Your task to perform on an android device: Open notification settings Image 0: 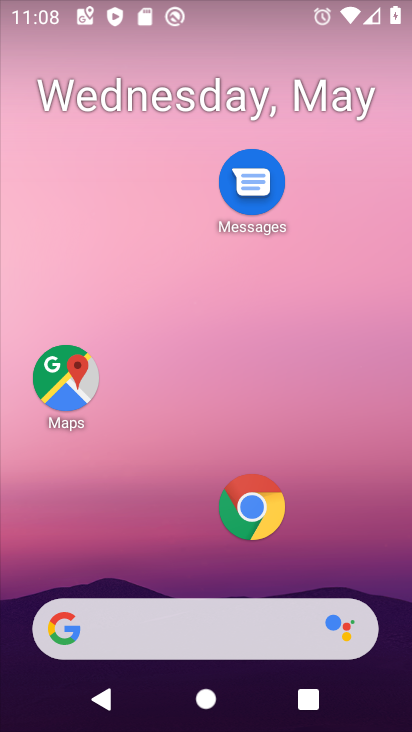
Step 0: press home button
Your task to perform on an android device: Open notification settings Image 1: 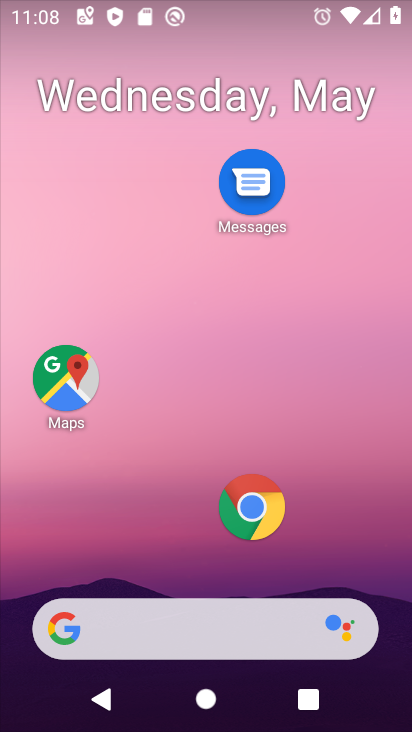
Step 1: drag from (202, 548) to (268, 103)
Your task to perform on an android device: Open notification settings Image 2: 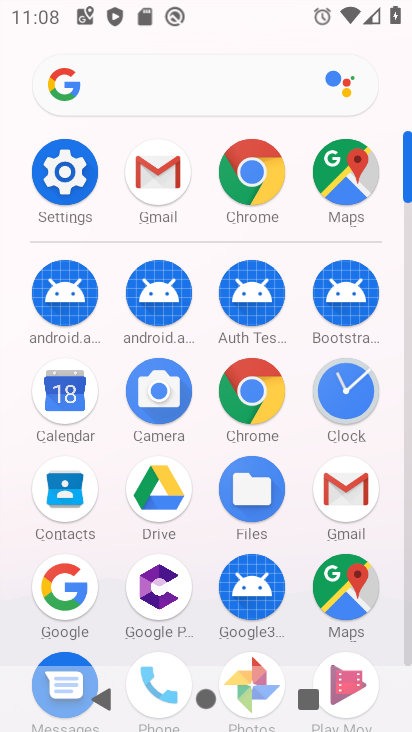
Step 2: click (67, 170)
Your task to perform on an android device: Open notification settings Image 3: 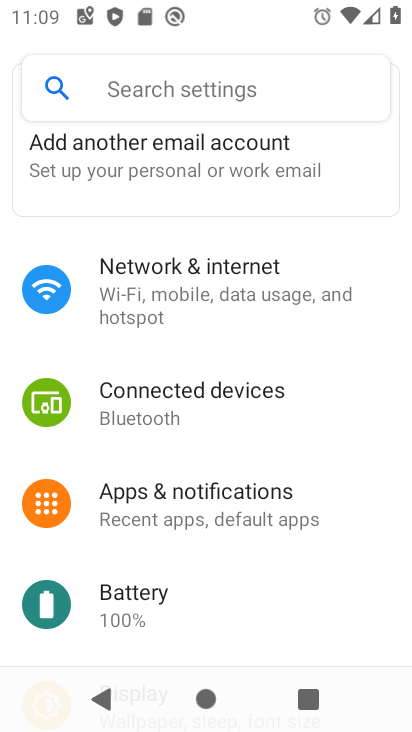
Step 3: click (223, 507)
Your task to perform on an android device: Open notification settings Image 4: 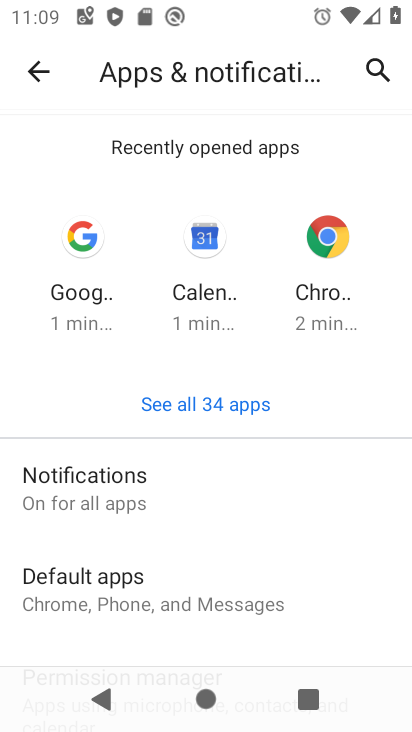
Step 4: click (160, 477)
Your task to perform on an android device: Open notification settings Image 5: 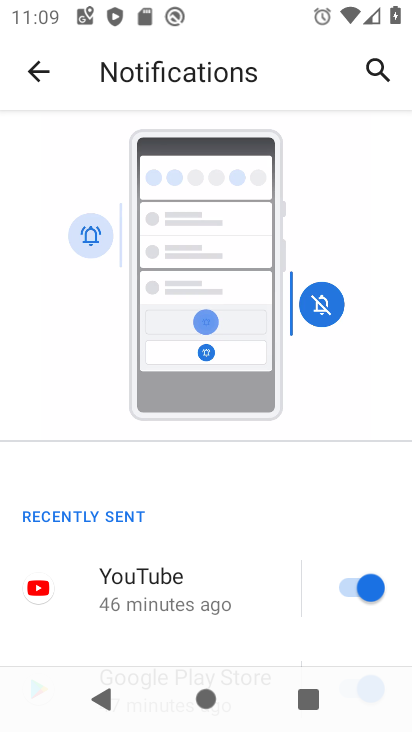
Step 5: drag from (234, 597) to (286, 233)
Your task to perform on an android device: Open notification settings Image 6: 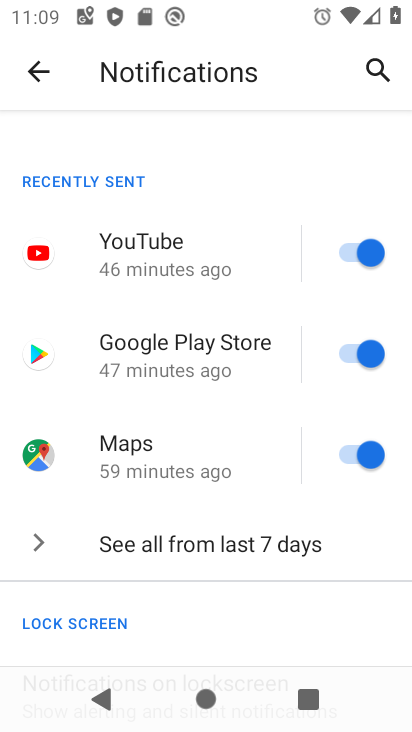
Step 6: drag from (182, 604) to (221, 399)
Your task to perform on an android device: Open notification settings Image 7: 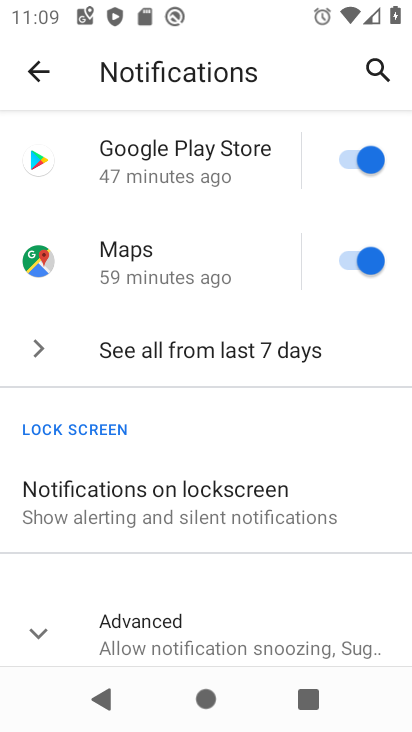
Step 7: click (56, 627)
Your task to perform on an android device: Open notification settings Image 8: 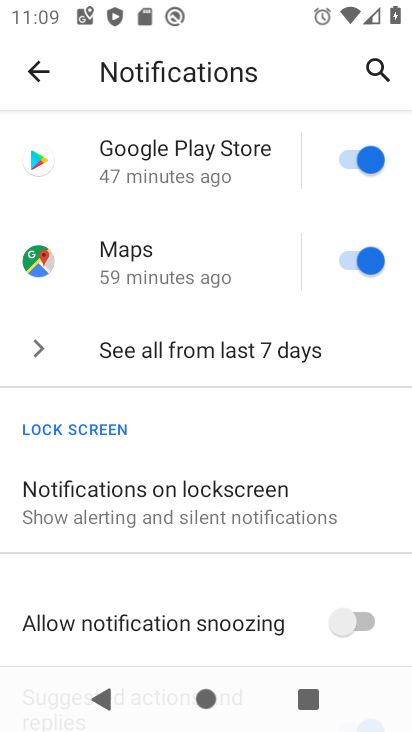
Step 8: task complete